Your task to perform on an android device: create a new album in the google photos Image 0: 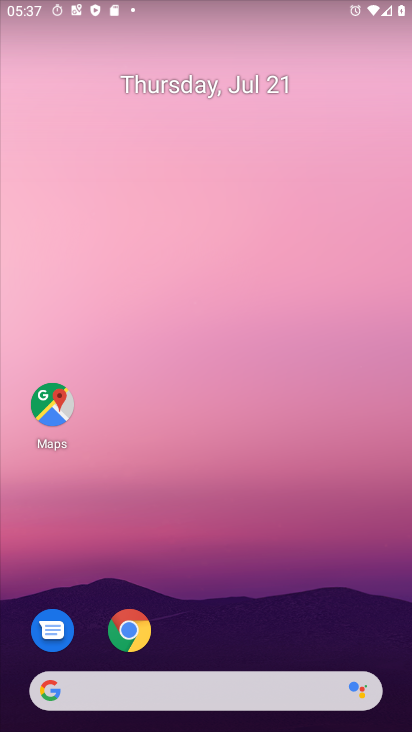
Step 0: drag from (179, 682) to (232, 13)
Your task to perform on an android device: create a new album in the google photos Image 1: 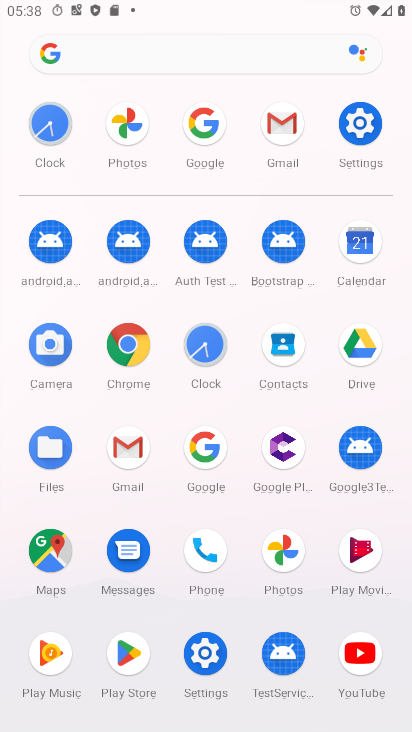
Step 1: click (282, 545)
Your task to perform on an android device: create a new album in the google photos Image 2: 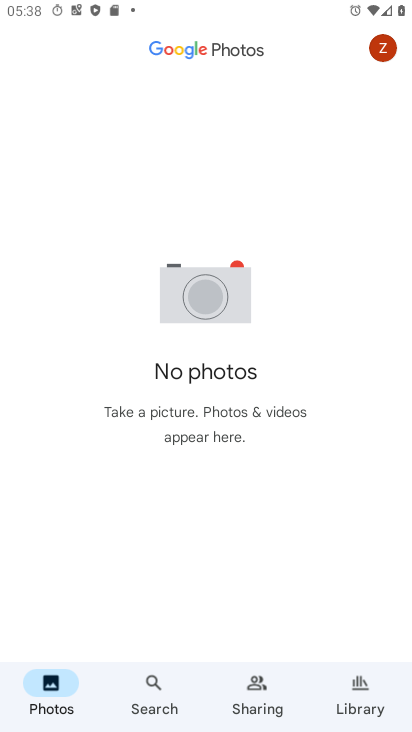
Step 2: click (152, 685)
Your task to perform on an android device: create a new album in the google photos Image 3: 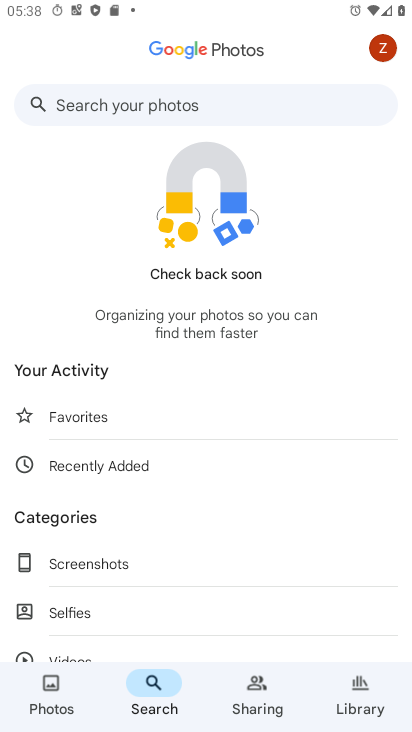
Step 3: drag from (108, 597) to (191, 495)
Your task to perform on an android device: create a new album in the google photos Image 4: 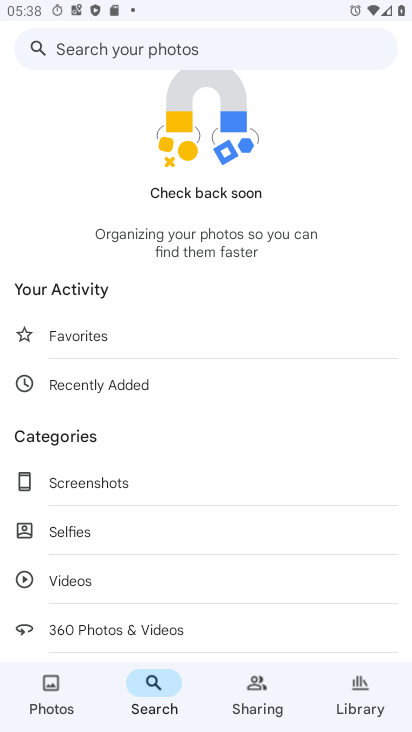
Step 4: drag from (119, 559) to (205, 438)
Your task to perform on an android device: create a new album in the google photos Image 5: 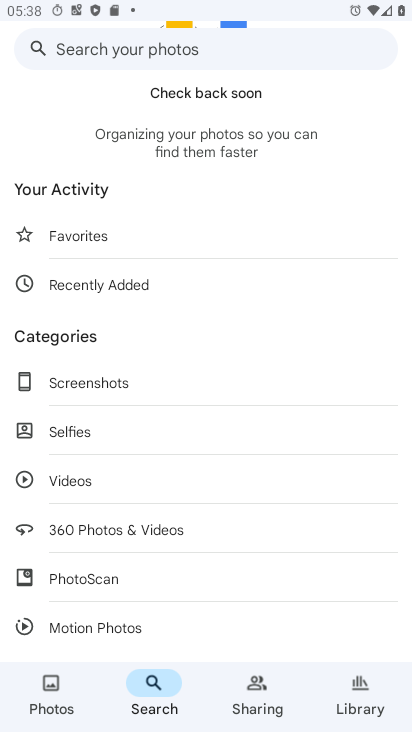
Step 5: drag from (133, 593) to (182, 504)
Your task to perform on an android device: create a new album in the google photos Image 6: 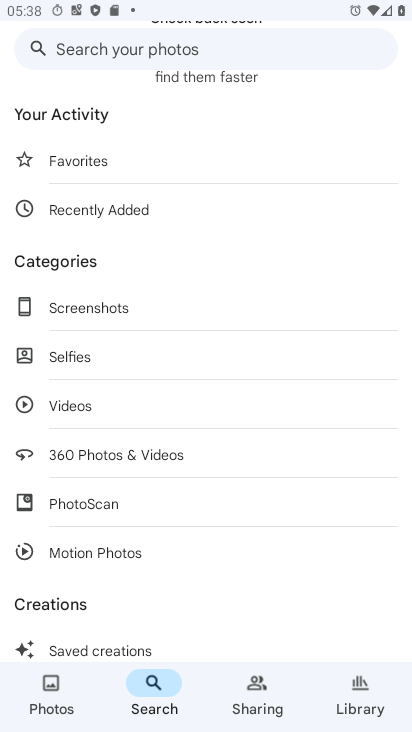
Step 6: drag from (113, 588) to (163, 509)
Your task to perform on an android device: create a new album in the google photos Image 7: 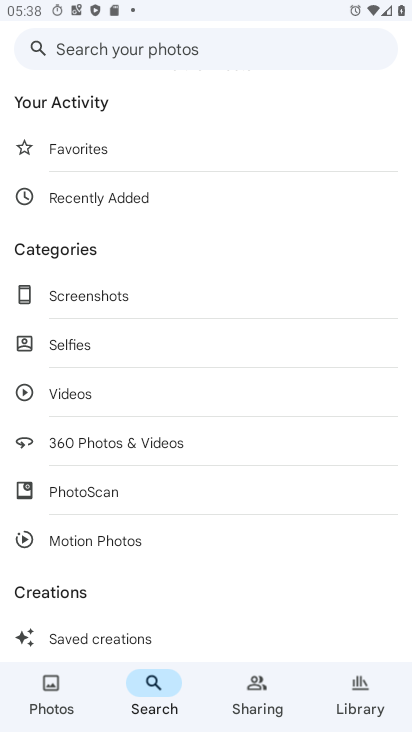
Step 7: drag from (112, 573) to (153, 423)
Your task to perform on an android device: create a new album in the google photos Image 8: 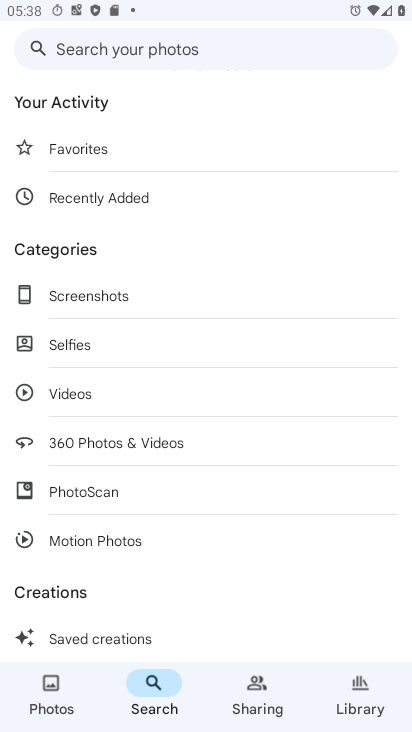
Step 8: click (56, 682)
Your task to perform on an android device: create a new album in the google photos Image 9: 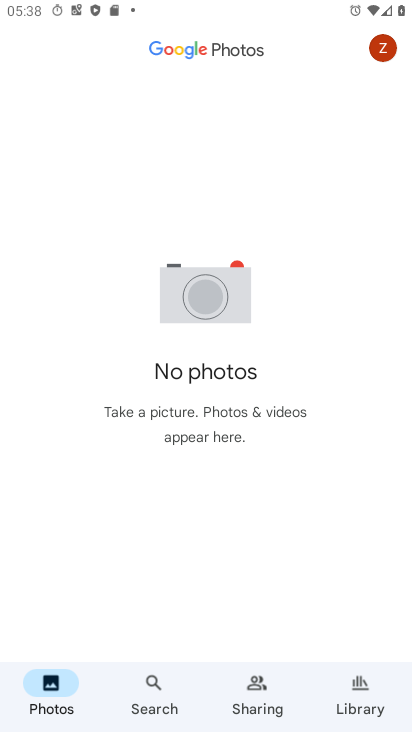
Step 9: click (358, 690)
Your task to perform on an android device: create a new album in the google photos Image 10: 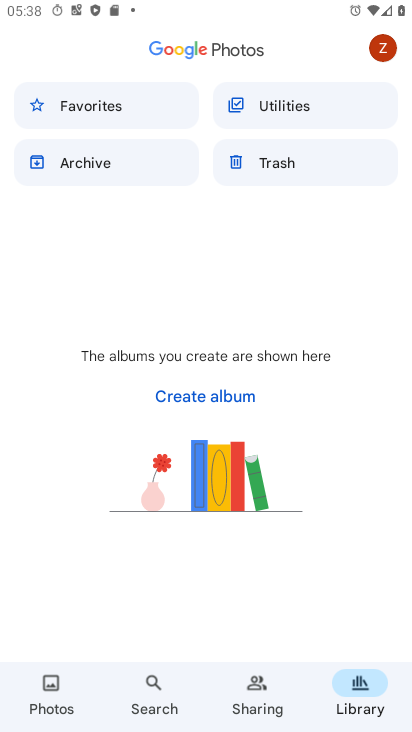
Step 10: click (239, 398)
Your task to perform on an android device: create a new album in the google photos Image 11: 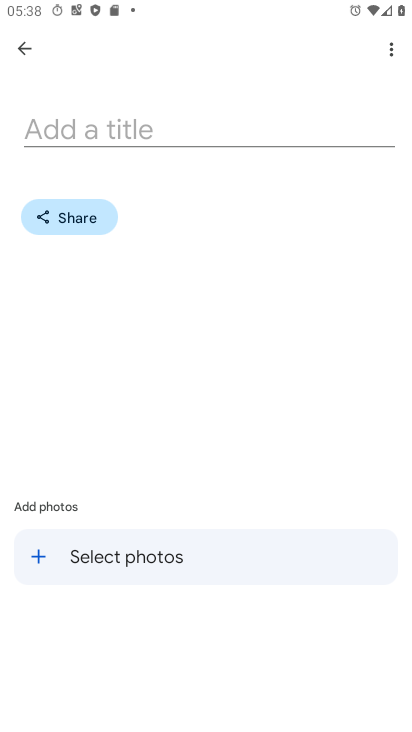
Step 11: click (157, 130)
Your task to perform on an android device: create a new album in the google photos Image 12: 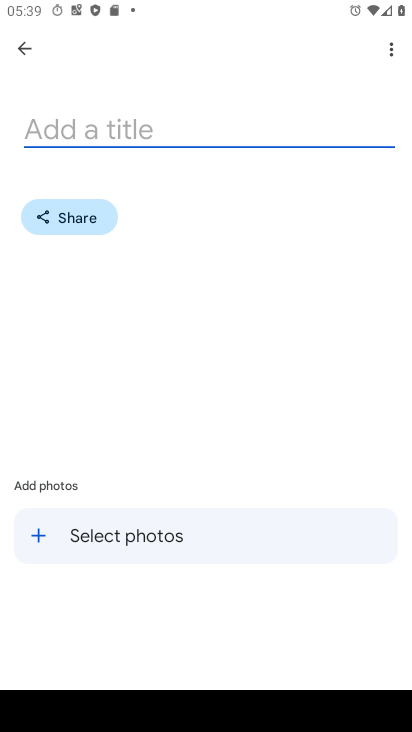
Step 12: type "Bhole"
Your task to perform on an android device: create a new album in the google photos Image 13: 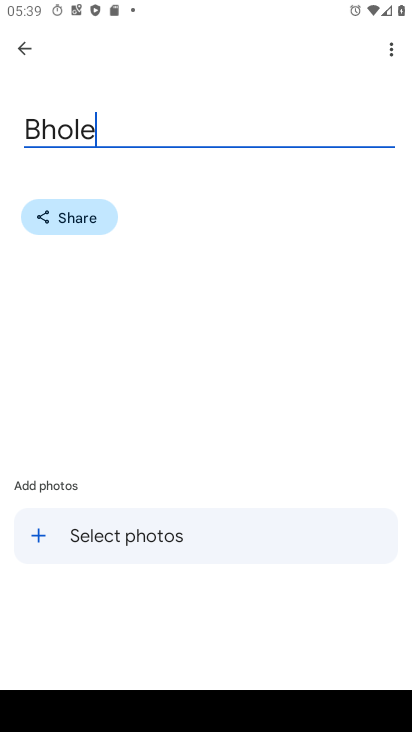
Step 13: click (37, 531)
Your task to perform on an android device: create a new album in the google photos Image 14: 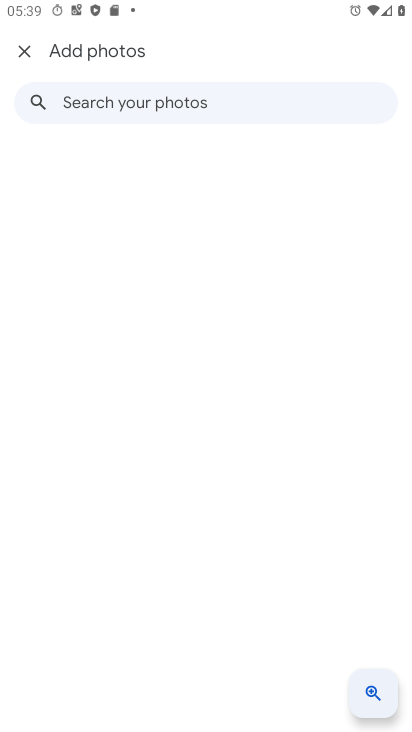
Step 14: task complete